Your task to perform on an android device: move an email to a new category in the gmail app Image 0: 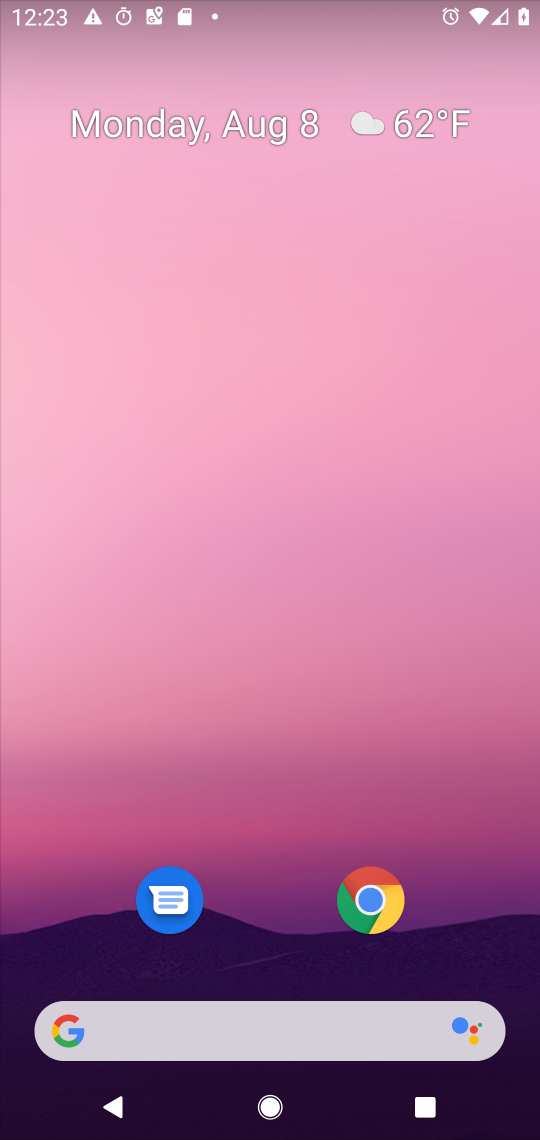
Step 0: press home button
Your task to perform on an android device: move an email to a new category in the gmail app Image 1: 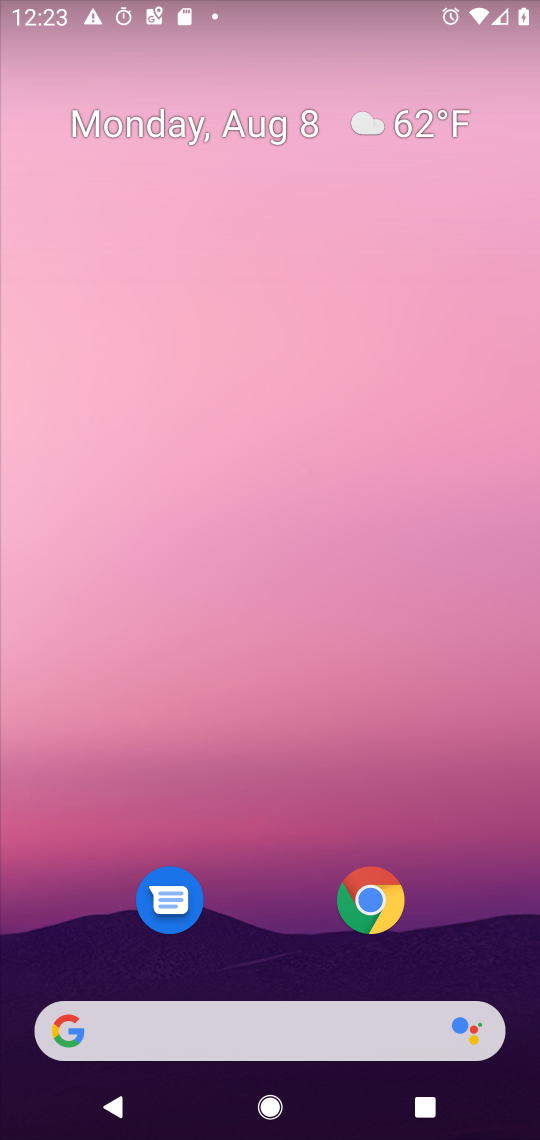
Step 1: drag from (287, 976) to (381, 72)
Your task to perform on an android device: move an email to a new category in the gmail app Image 2: 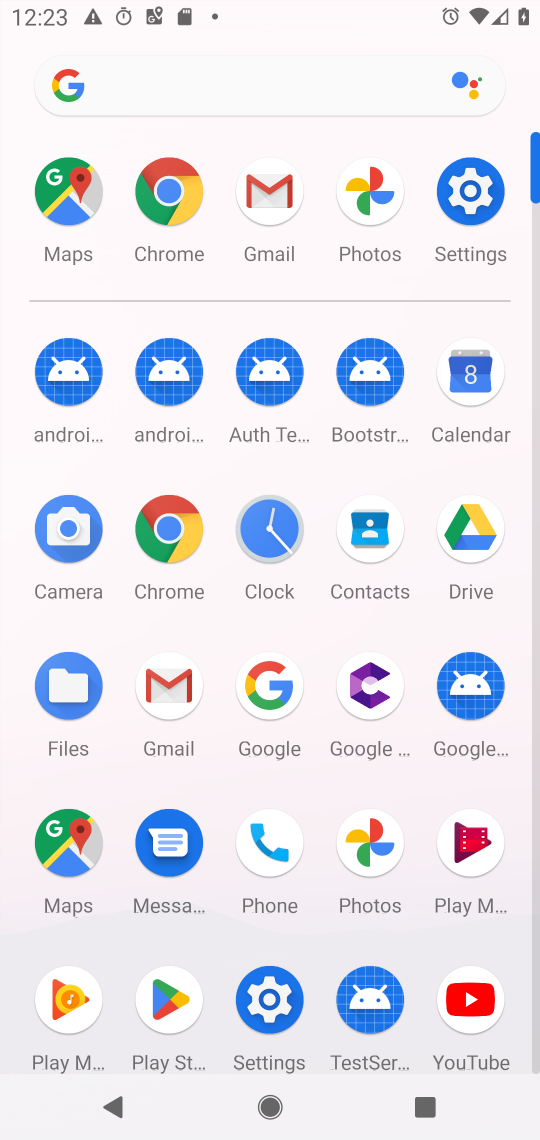
Step 2: click (164, 674)
Your task to perform on an android device: move an email to a new category in the gmail app Image 3: 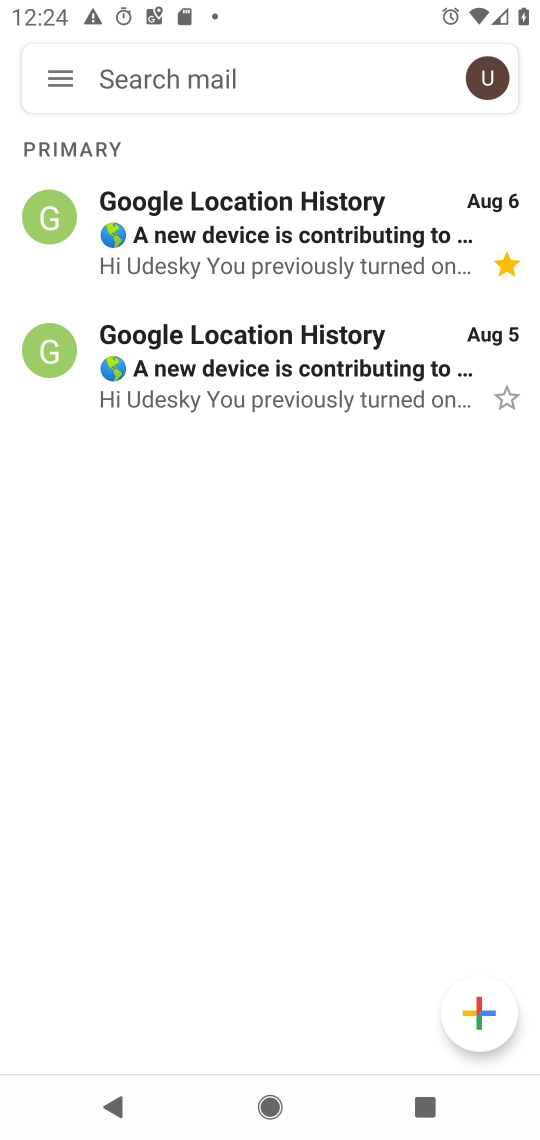
Step 3: click (80, 74)
Your task to perform on an android device: move an email to a new category in the gmail app Image 4: 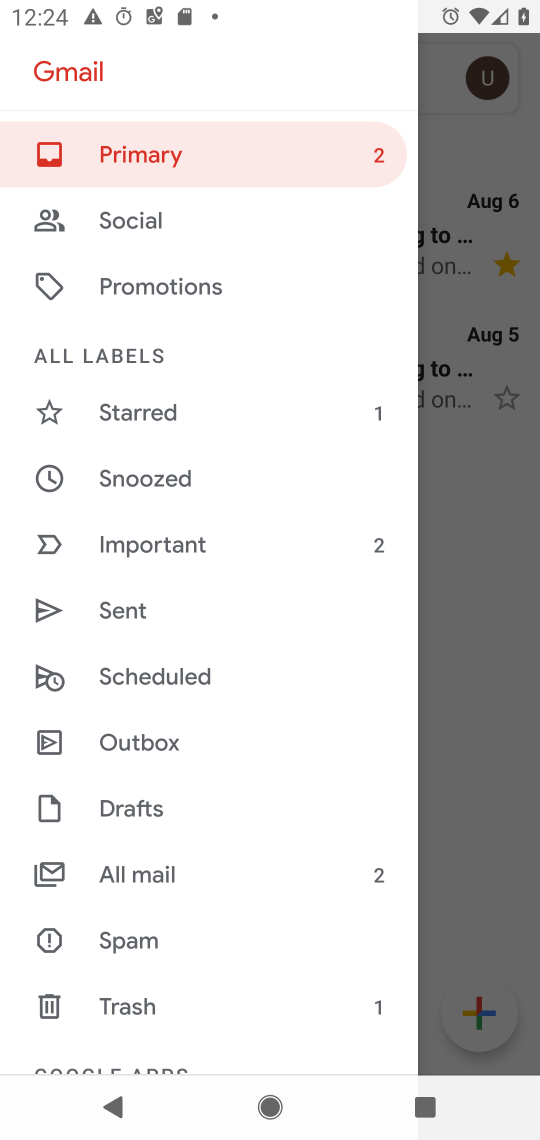
Step 4: click (496, 660)
Your task to perform on an android device: move an email to a new category in the gmail app Image 5: 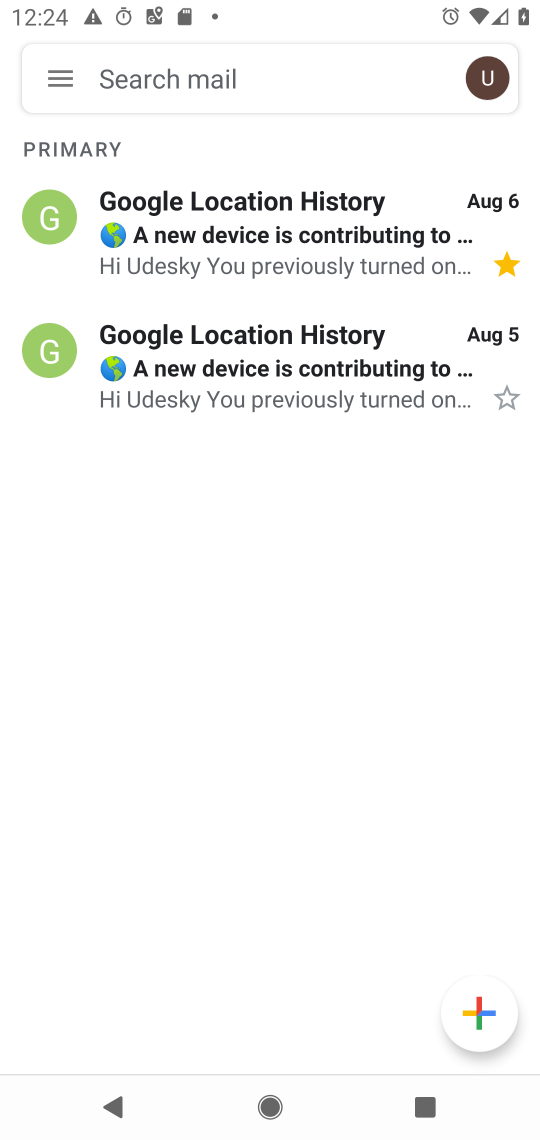
Step 5: click (38, 218)
Your task to perform on an android device: move an email to a new category in the gmail app Image 6: 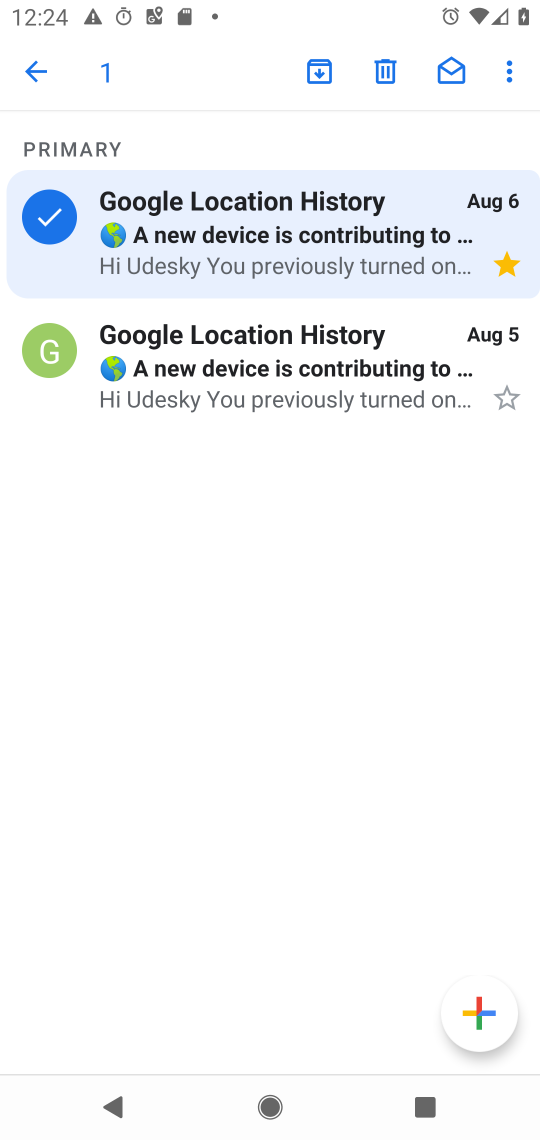
Step 6: click (504, 66)
Your task to perform on an android device: move an email to a new category in the gmail app Image 7: 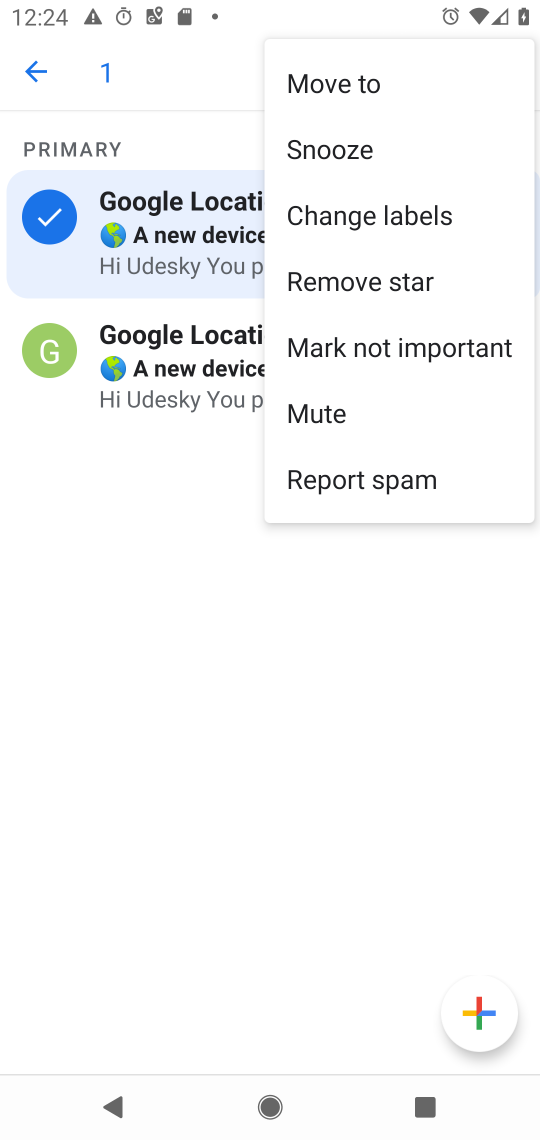
Step 7: click (392, 80)
Your task to perform on an android device: move an email to a new category in the gmail app Image 8: 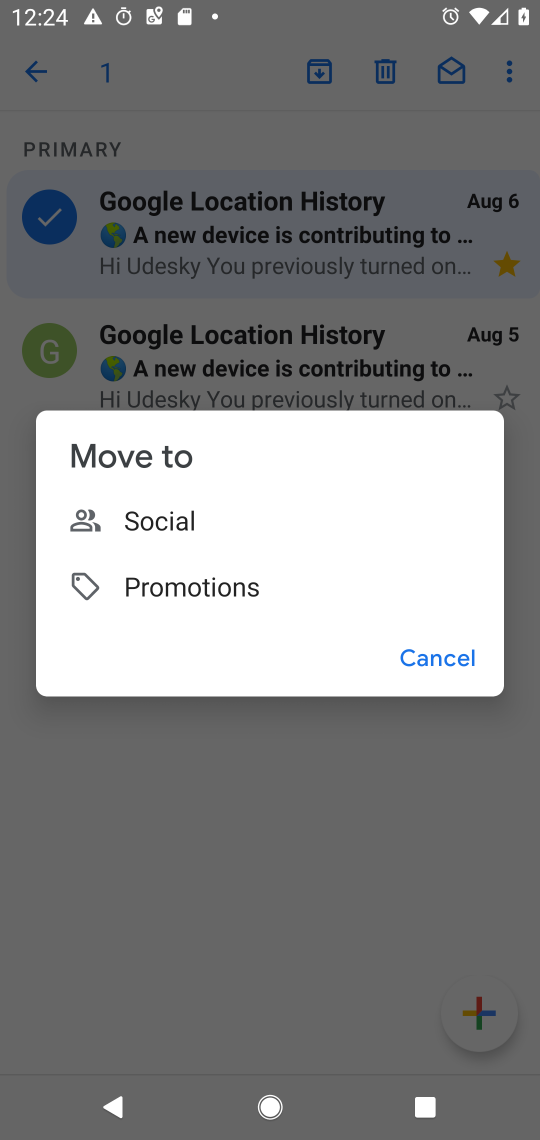
Step 8: click (181, 509)
Your task to perform on an android device: move an email to a new category in the gmail app Image 9: 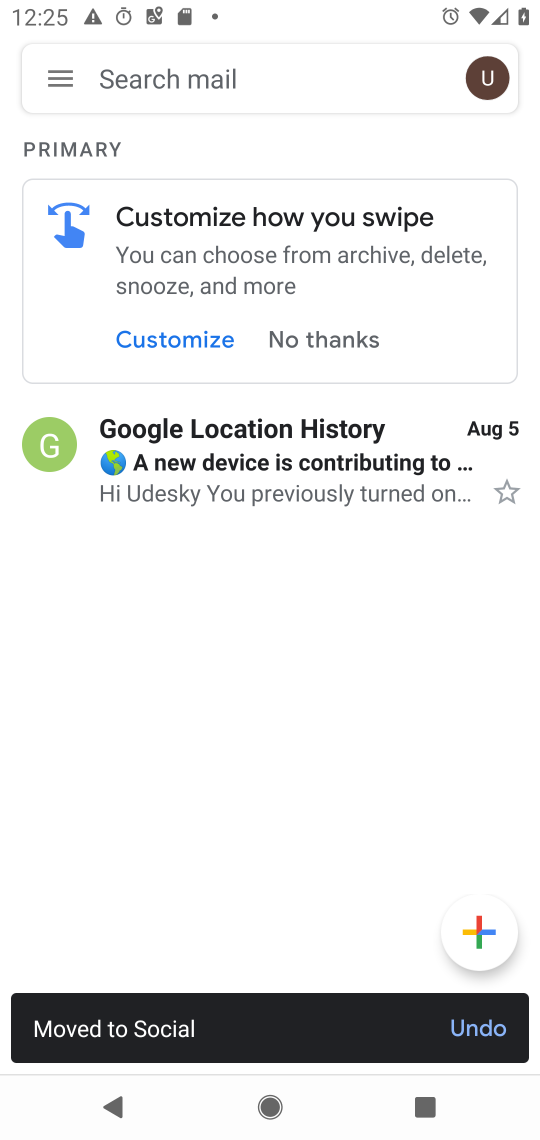
Step 9: task complete